Your task to perform on an android device: turn pop-ups off in chrome Image 0: 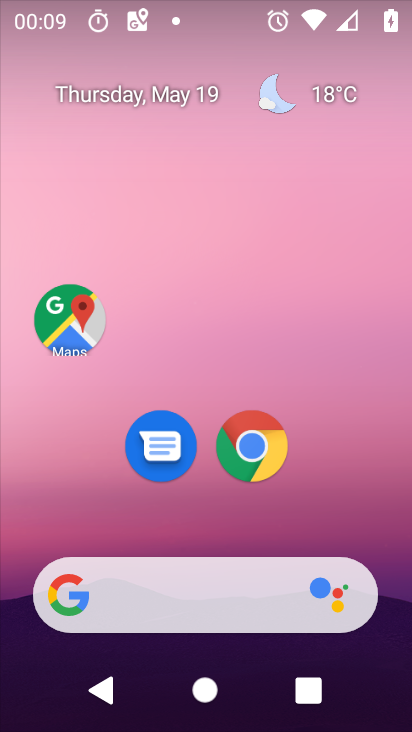
Step 0: press home button
Your task to perform on an android device: turn pop-ups off in chrome Image 1: 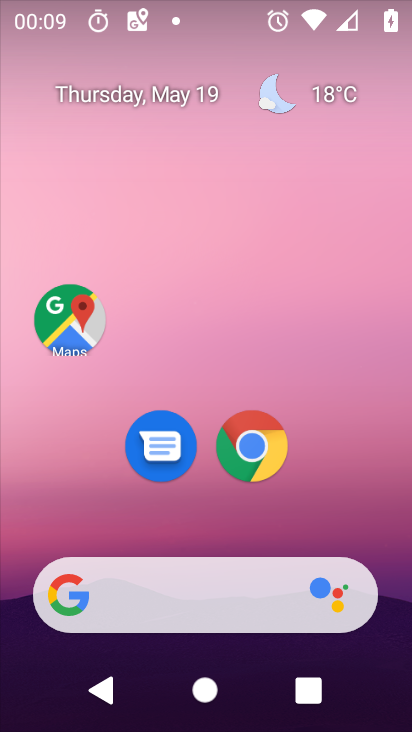
Step 1: click (252, 435)
Your task to perform on an android device: turn pop-ups off in chrome Image 2: 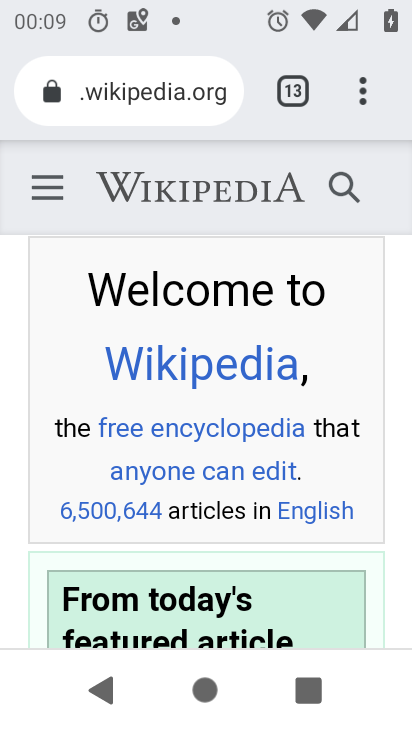
Step 2: drag from (363, 93) to (271, 486)
Your task to perform on an android device: turn pop-ups off in chrome Image 3: 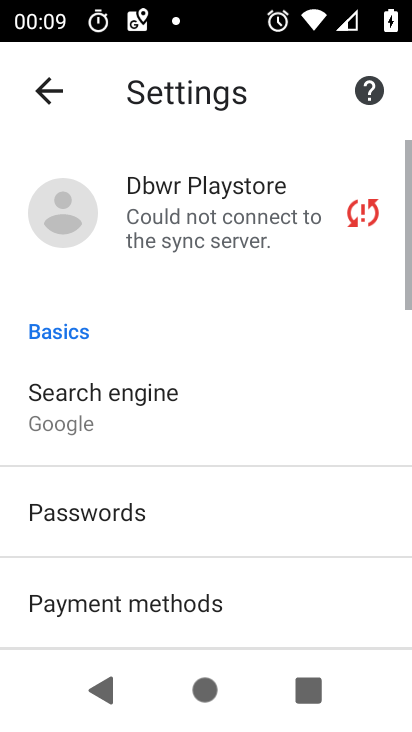
Step 3: drag from (220, 592) to (386, 79)
Your task to perform on an android device: turn pop-ups off in chrome Image 4: 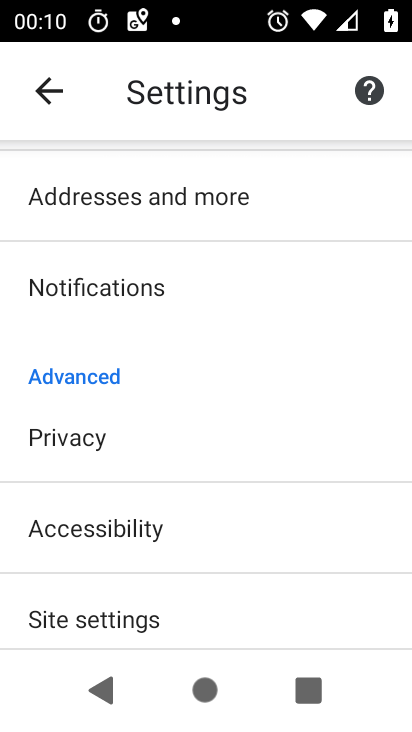
Step 4: drag from (225, 541) to (341, 192)
Your task to perform on an android device: turn pop-ups off in chrome Image 5: 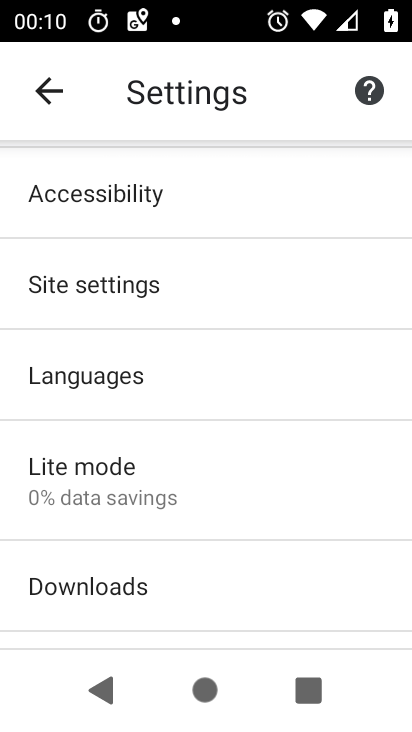
Step 5: click (145, 272)
Your task to perform on an android device: turn pop-ups off in chrome Image 6: 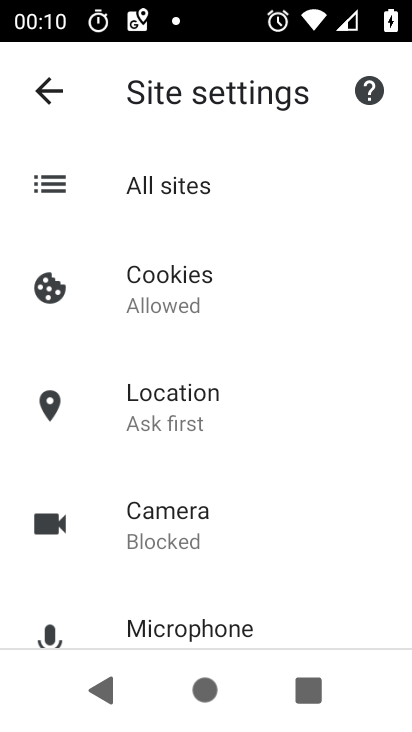
Step 6: drag from (286, 557) to (410, 100)
Your task to perform on an android device: turn pop-ups off in chrome Image 7: 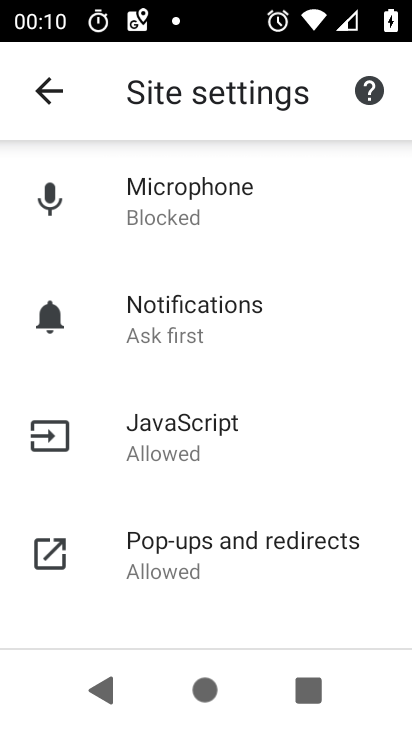
Step 7: click (214, 550)
Your task to perform on an android device: turn pop-ups off in chrome Image 8: 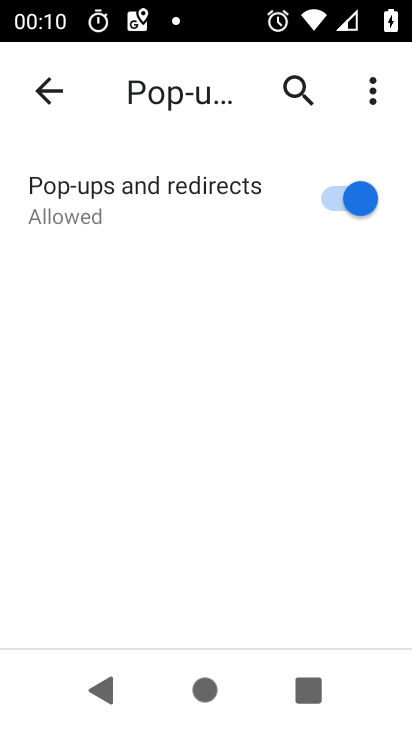
Step 8: click (333, 197)
Your task to perform on an android device: turn pop-ups off in chrome Image 9: 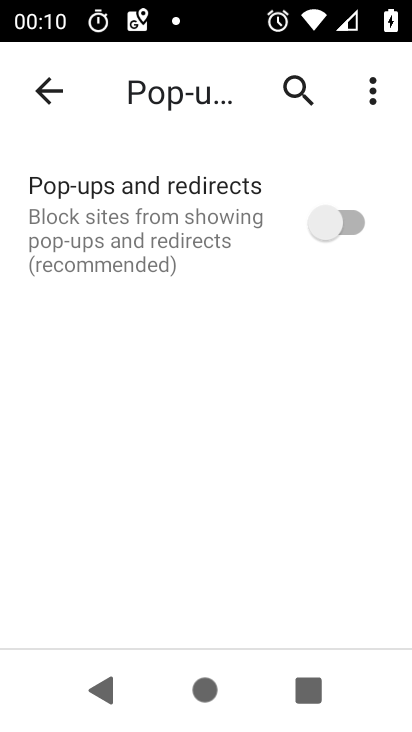
Step 9: task complete